Your task to perform on an android device: empty trash in the gmail app Image 0: 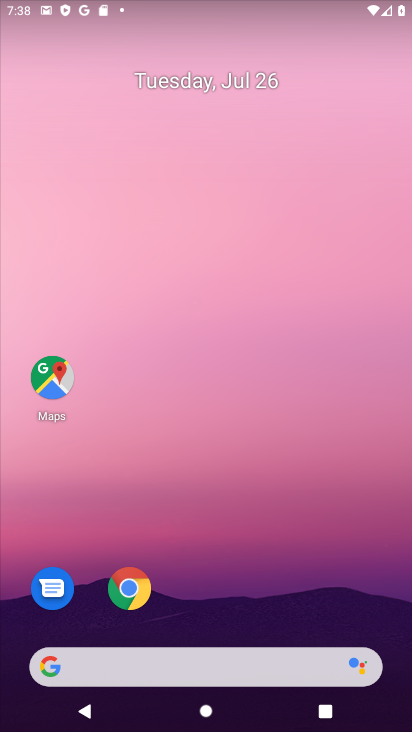
Step 0: drag from (196, 675) to (259, 88)
Your task to perform on an android device: empty trash in the gmail app Image 1: 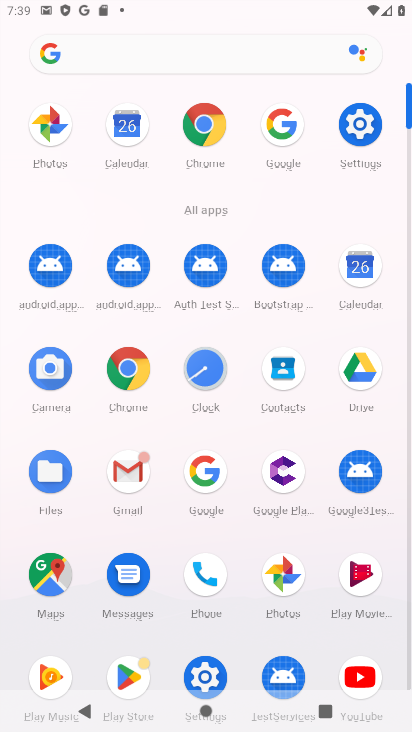
Step 1: click (131, 462)
Your task to perform on an android device: empty trash in the gmail app Image 2: 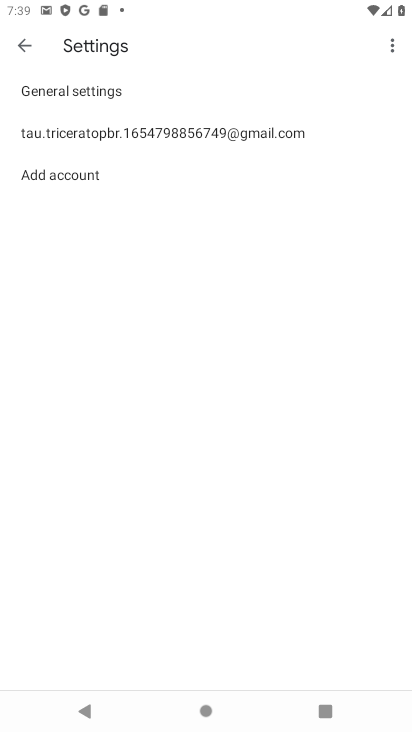
Step 2: click (25, 52)
Your task to perform on an android device: empty trash in the gmail app Image 3: 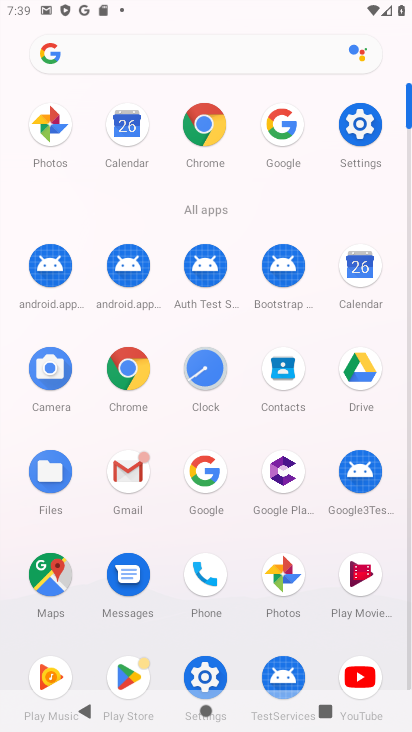
Step 3: click (131, 484)
Your task to perform on an android device: empty trash in the gmail app Image 4: 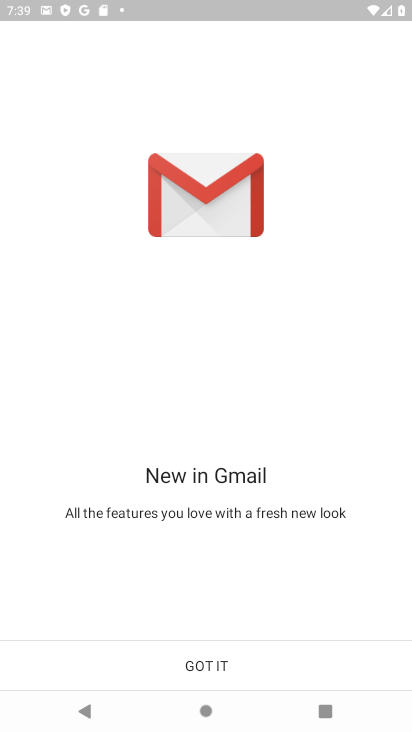
Step 4: click (166, 656)
Your task to perform on an android device: empty trash in the gmail app Image 5: 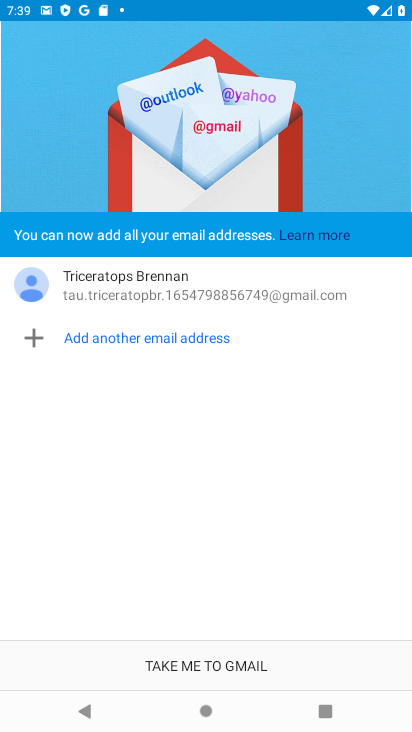
Step 5: click (161, 656)
Your task to perform on an android device: empty trash in the gmail app Image 6: 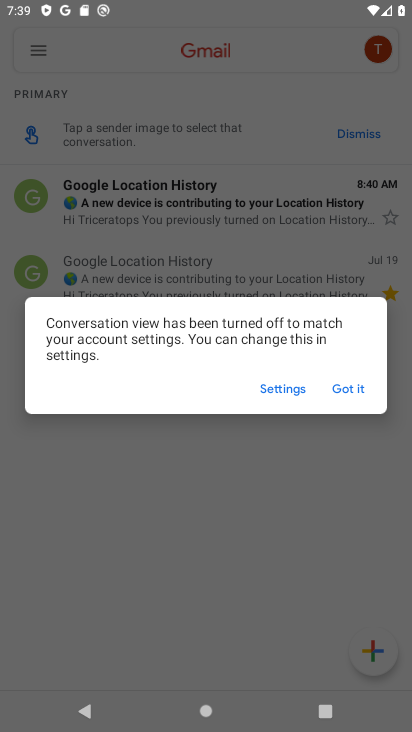
Step 6: click (353, 389)
Your task to perform on an android device: empty trash in the gmail app Image 7: 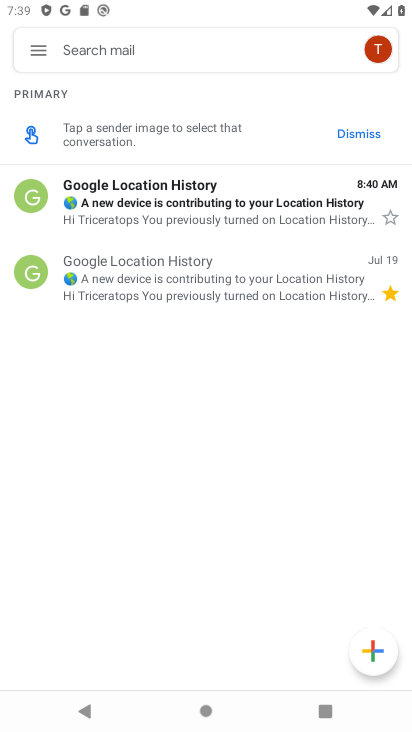
Step 7: click (44, 43)
Your task to perform on an android device: empty trash in the gmail app Image 8: 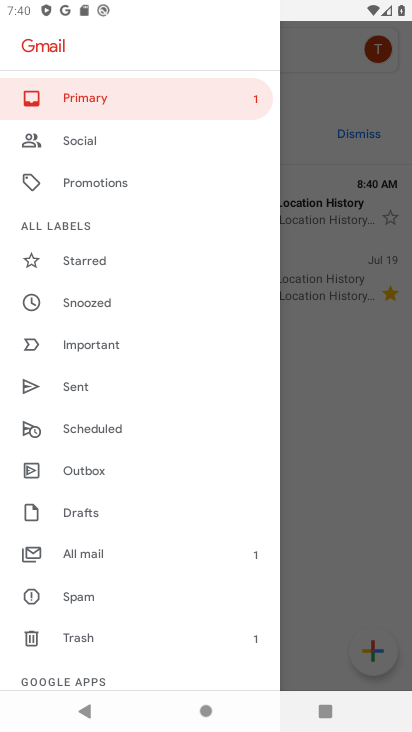
Step 8: click (51, 634)
Your task to perform on an android device: empty trash in the gmail app Image 9: 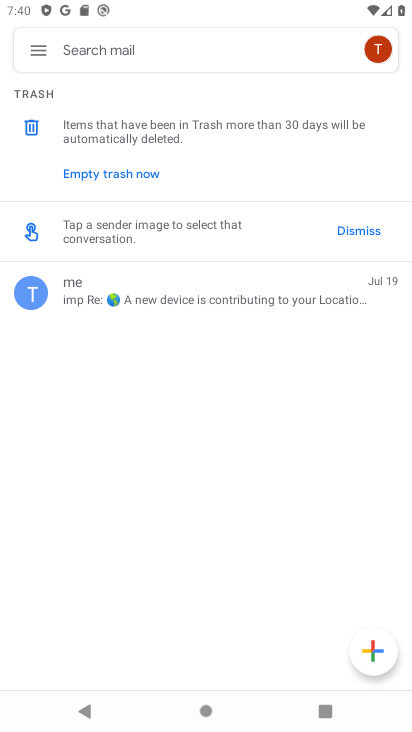
Step 9: click (71, 174)
Your task to perform on an android device: empty trash in the gmail app Image 10: 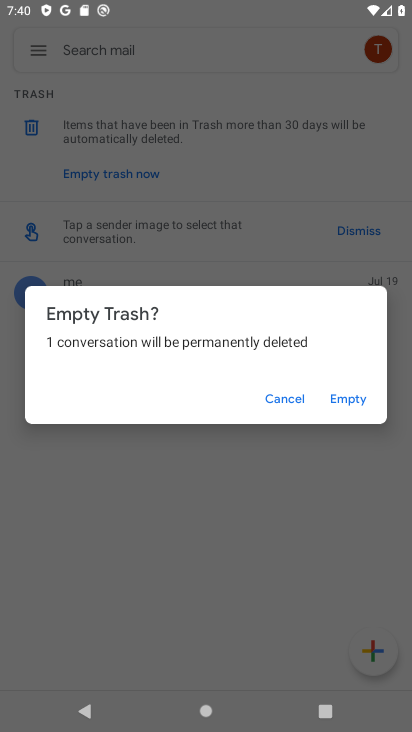
Step 10: click (341, 406)
Your task to perform on an android device: empty trash in the gmail app Image 11: 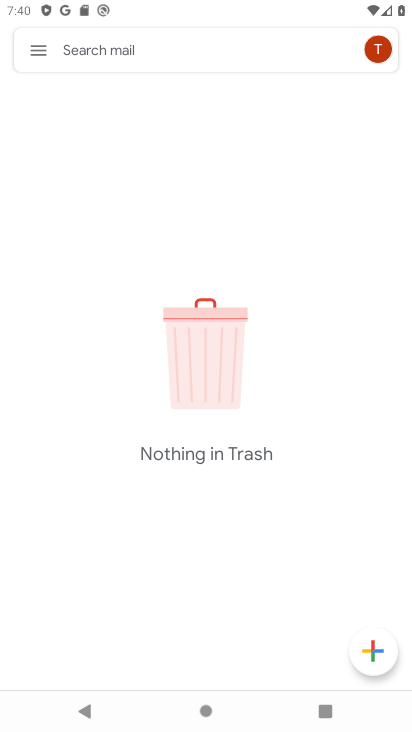
Step 11: task complete